Your task to perform on an android device: Clear the cart on costco.com. Add "usb-c" to the cart on costco.com, then select checkout. Image 0: 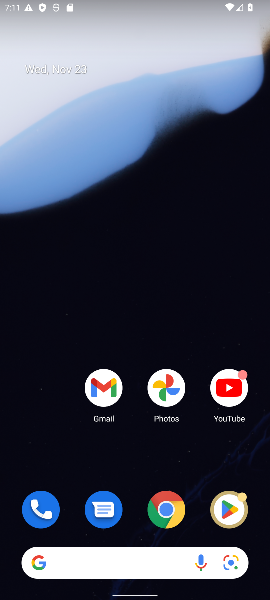
Step 0: click (176, 521)
Your task to perform on an android device: Clear the cart on costco.com. Add "usb-c" to the cart on costco.com, then select checkout. Image 1: 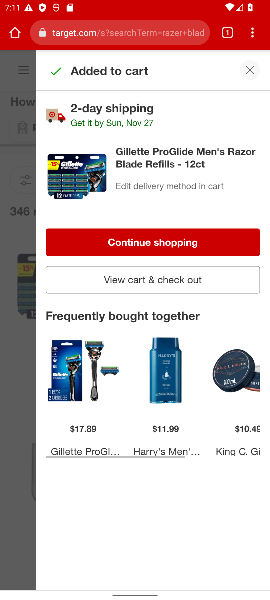
Step 1: click (123, 29)
Your task to perform on an android device: Clear the cart on costco.com. Add "usb-c" to the cart on costco.com, then select checkout. Image 2: 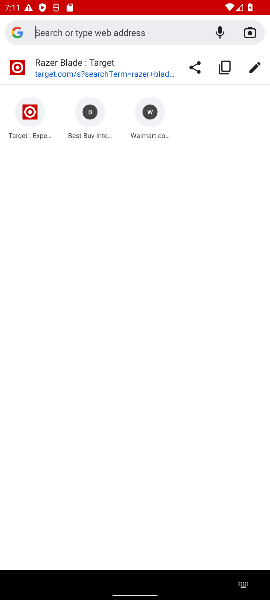
Step 2: type "costco.com"
Your task to perform on an android device: Clear the cart on costco.com. Add "usb-c" to the cart on costco.com, then select checkout. Image 3: 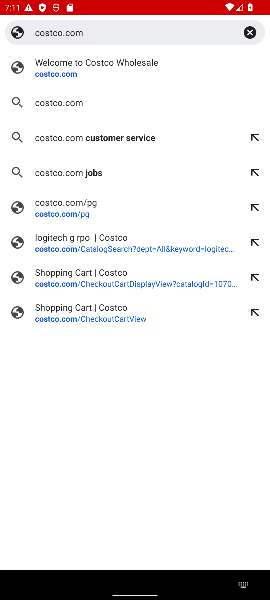
Step 3: click (52, 59)
Your task to perform on an android device: Clear the cart on costco.com. Add "usb-c" to the cart on costco.com, then select checkout. Image 4: 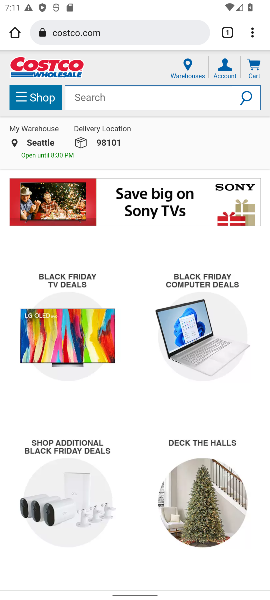
Step 4: click (251, 64)
Your task to perform on an android device: Clear the cart on costco.com. Add "usb-c" to the cart on costco.com, then select checkout. Image 5: 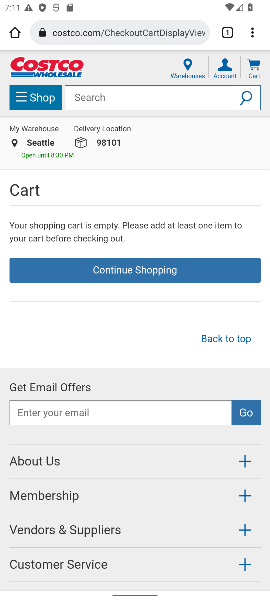
Step 5: click (126, 98)
Your task to perform on an android device: Clear the cart on costco.com. Add "usb-c" to the cart on costco.com, then select checkout. Image 6: 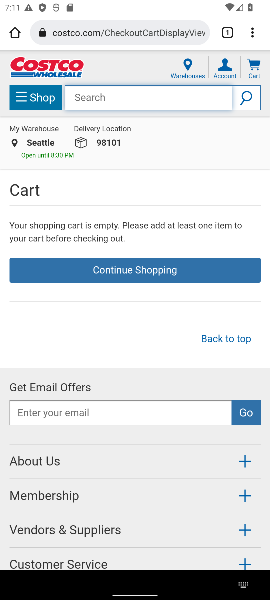
Step 6: type "usb-c"
Your task to perform on an android device: Clear the cart on costco.com. Add "usb-c" to the cart on costco.com, then select checkout. Image 7: 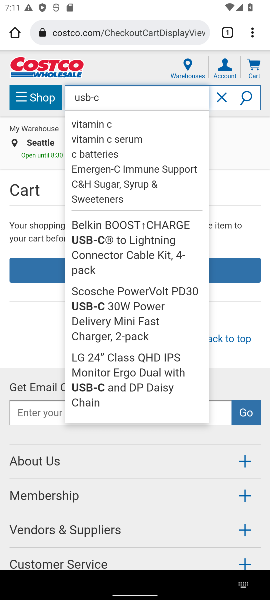
Step 7: press enter
Your task to perform on an android device: Clear the cart on costco.com. Add "usb-c" to the cart on costco.com, then select checkout. Image 8: 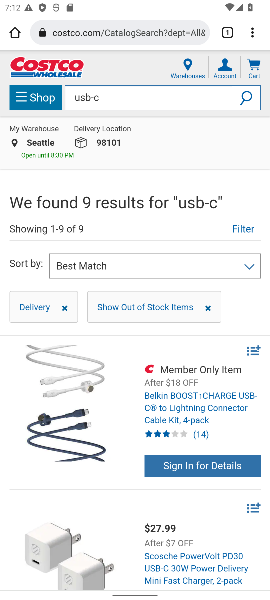
Step 8: drag from (126, 456) to (114, 320)
Your task to perform on an android device: Clear the cart on costco.com. Add "usb-c" to the cart on costco.com, then select checkout. Image 9: 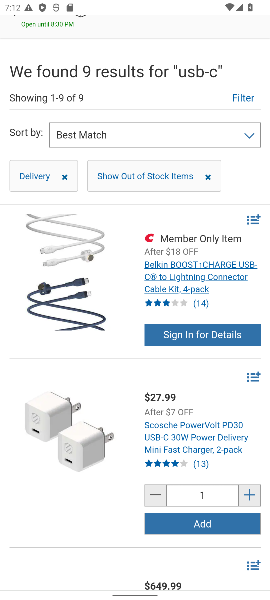
Step 9: drag from (200, 525) to (170, 332)
Your task to perform on an android device: Clear the cart on costco.com. Add "usb-c" to the cart on costco.com, then select checkout. Image 10: 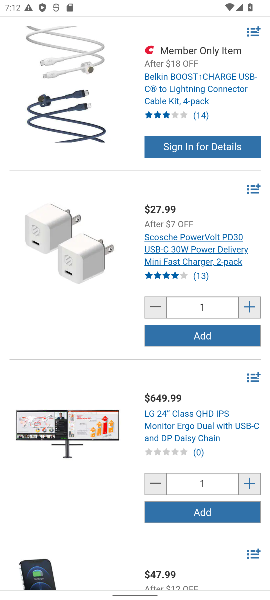
Step 10: drag from (129, 307) to (166, 582)
Your task to perform on an android device: Clear the cart on costco.com. Add "usb-c" to the cart on costco.com, then select checkout. Image 11: 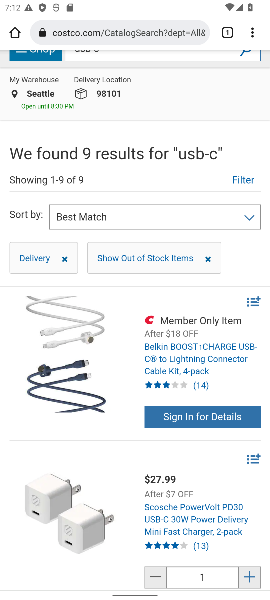
Step 11: click (162, 367)
Your task to perform on an android device: Clear the cart on costco.com. Add "usb-c" to the cart on costco.com, then select checkout. Image 12: 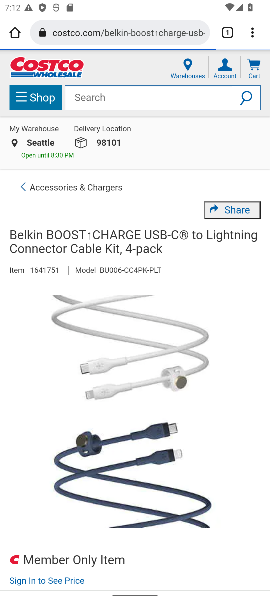
Step 12: task complete